Your task to perform on an android device: change the upload size in google photos Image 0: 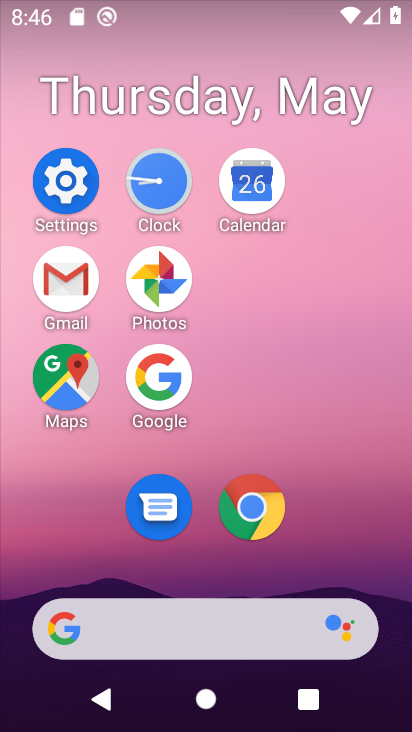
Step 0: click (149, 275)
Your task to perform on an android device: change the upload size in google photos Image 1: 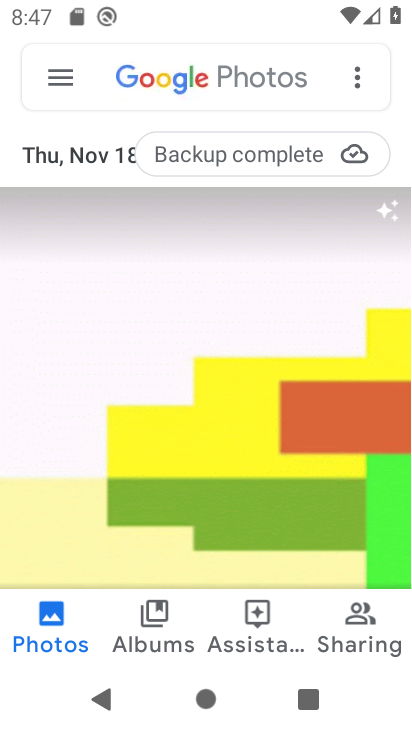
Step 1: click (56, 86)
Your task to perform on an android device: change the upload size in google photos Image 2: 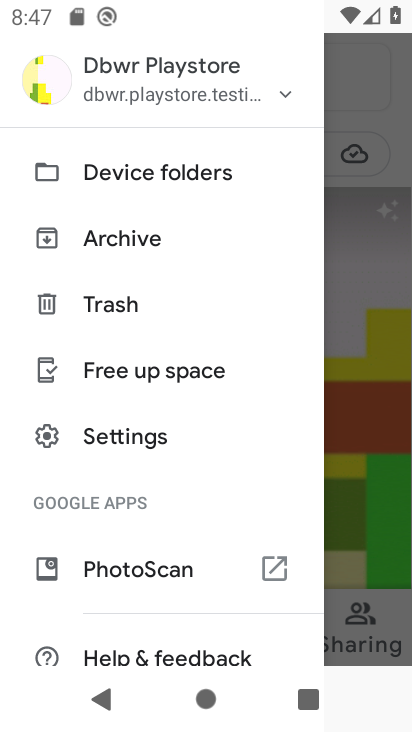
Step 2: drag from (148, 616) to (269, 192)
Your task to perform on an android device: change the upload size in google photos Image 3: 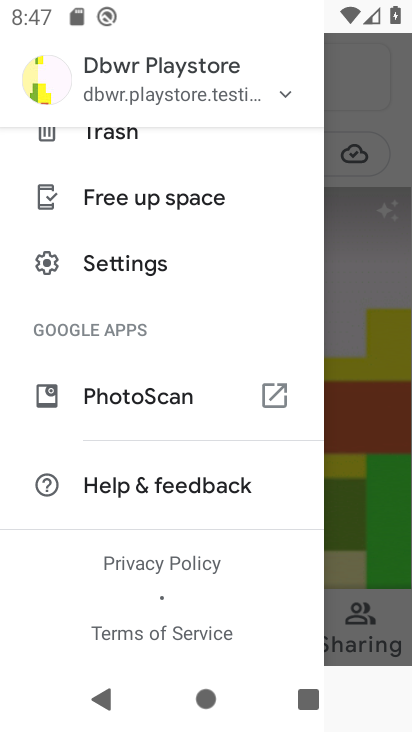
Step 3: click (201, 246)
Your task to perform on an android device: change the upload size in google photos Image 4: 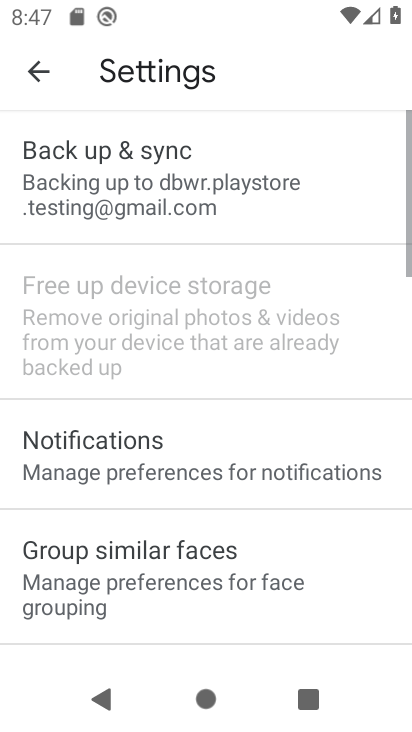
Step 4: click (183, 188)
Your task to perform on an android device: change the upload size in google photos Image 5: 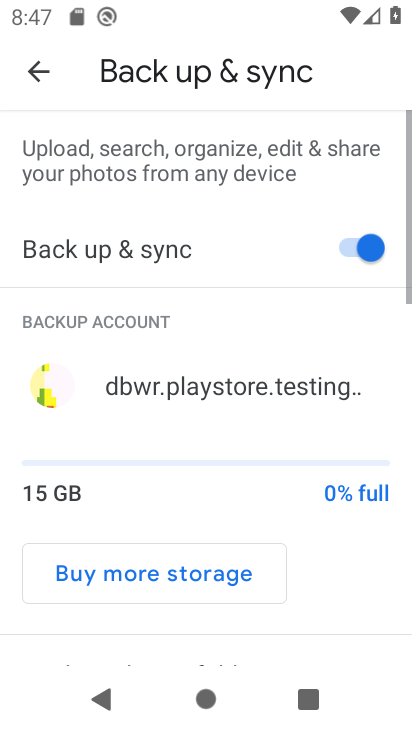
Step 5: drag from (169, 585) to (224, 236)
Your task to perform on an android device: change the upload size in google photos Image 6: 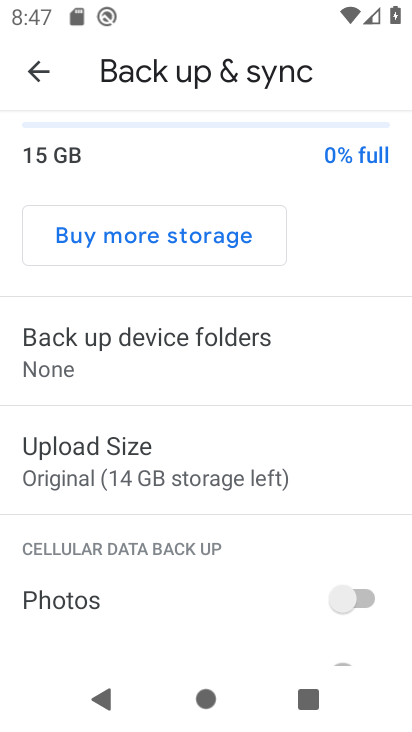
Step 6: click (176, 474)
Your task to perform on an android device: change the upload size in google photos Image 7: 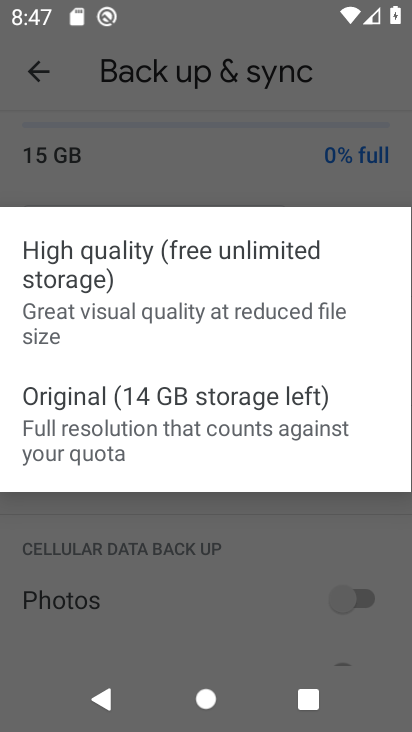
Step 7: click (279, 275)
Your task to perform on an android device: change the upload size in google photos Image 8: 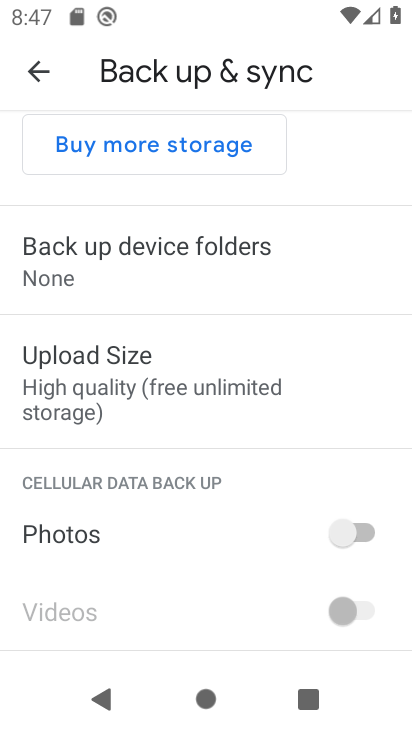
Step 8: task complete